Your task to perform on an android device: turn smart compose on in the gmail app Image 0: 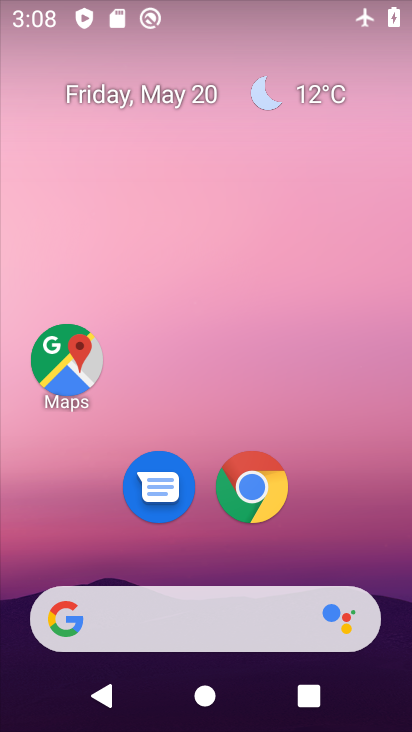
Step 0: drag from (299, 547) to (283, 229)
Your task to perform on an android device: turn smart compose on in the gmail app Image 1: 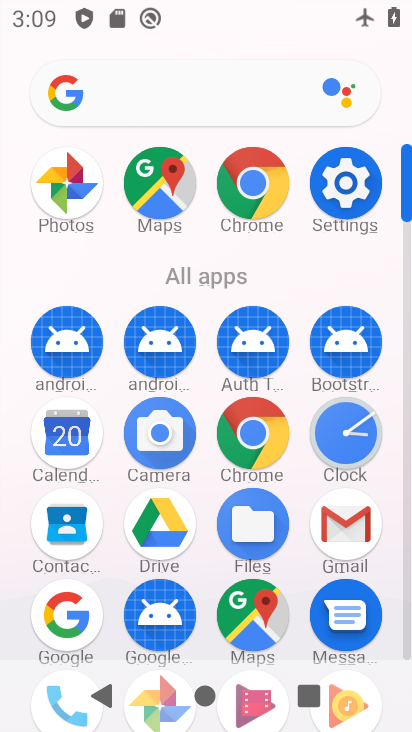
Step 1: drag from (221, 598) to (191, 307)
Your task to perform on an android device: turn smart compose on in the gmail app Image 2: 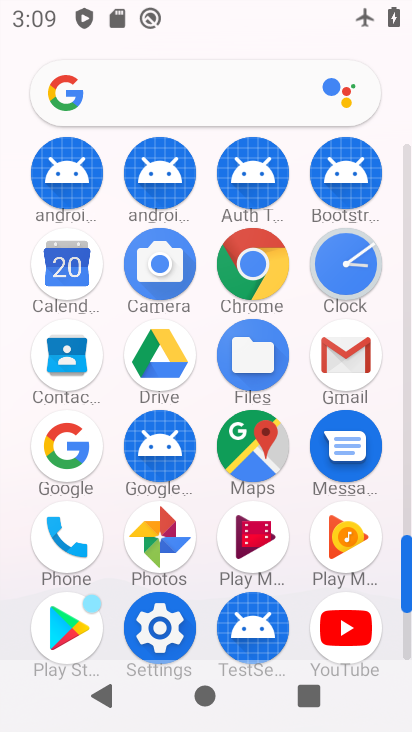
Step 2: click (345, 358)
Your task to perform on an android device: turn smart compose on in the gmail app Image 3: 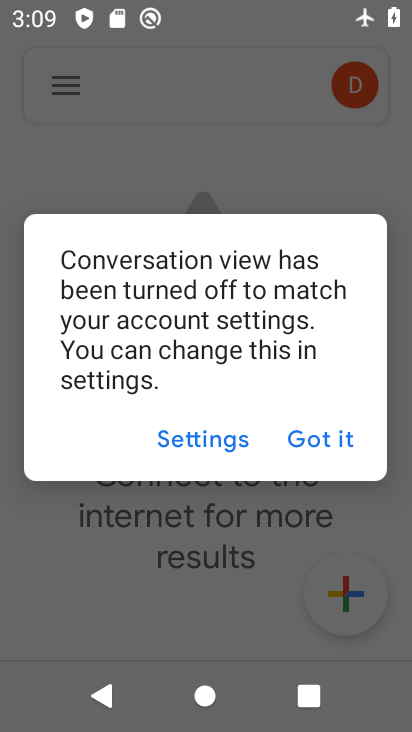
Step 3: click (325, 442)
Your task to perform on an android device: turn smart compose on in the gmail app Image 4: 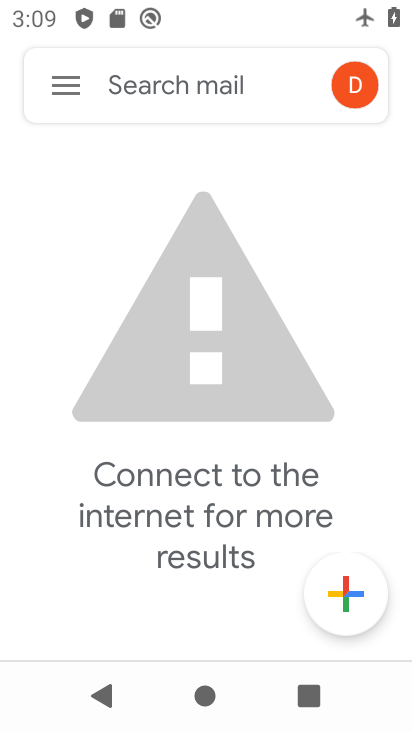
Step 4: click (68, 88)
Your task to perform on an android device: turn smart compose on in the gmail app Image 5: 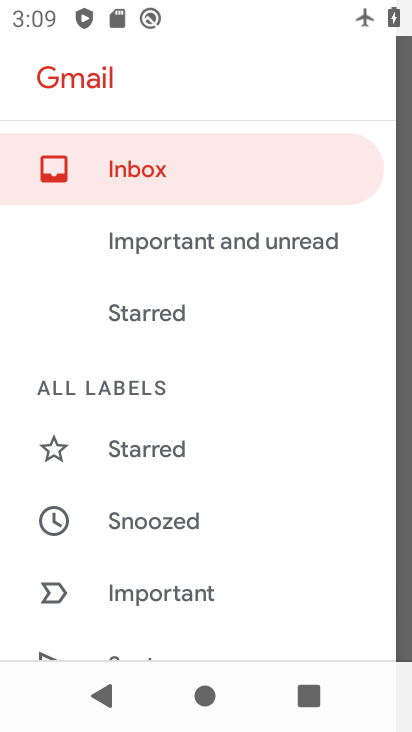
Step 5: drag from (194, 559) to (155, 277)
Your task to perform on an android device: turn smart compose on in the gmail app Image 6: 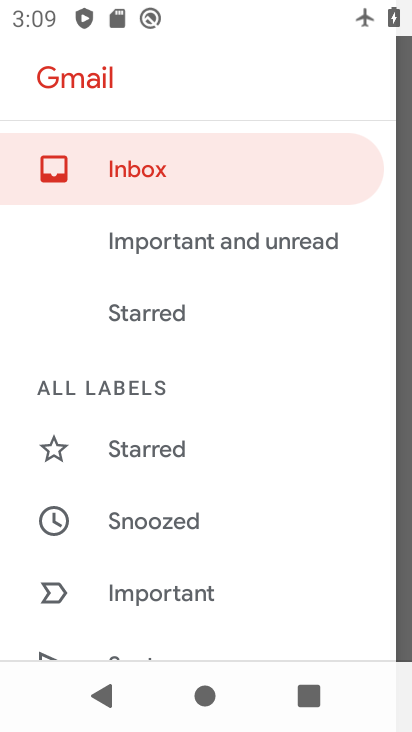
Step 6: drag from (164, 565) to (189, 284)
Your task to perform on an android device: turn smart compose on in the gmail app Image 7: 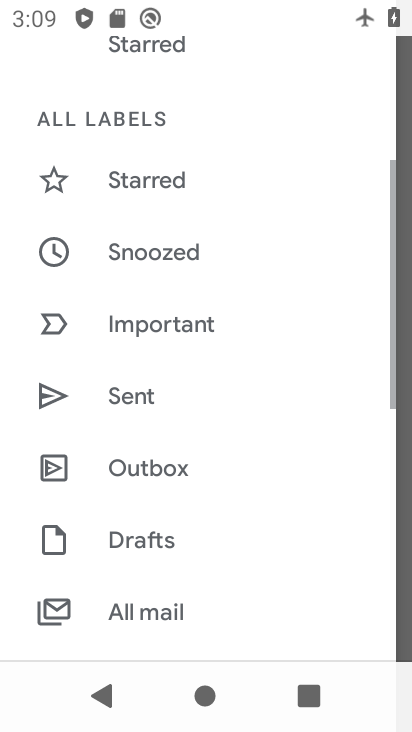
Step 7: drag from (199, 575) to (208, 255)
Your task to perform on an android device: turn smart compose on in the gmail app Image 8: 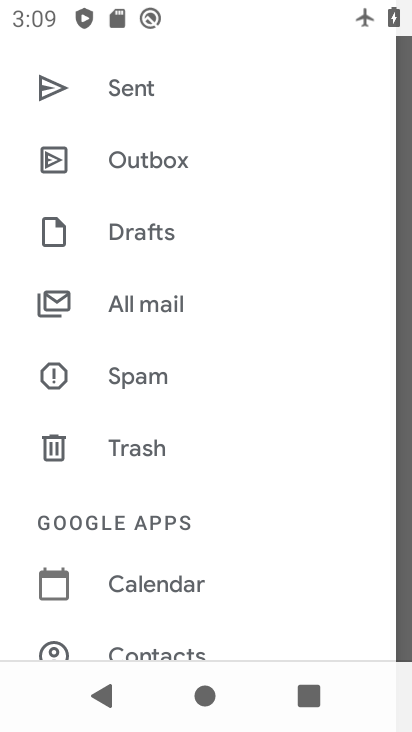
Step 8: drag from (195, 599) to (191, 335)
Your task to perform on an android device: turn smart compose on in the gmail app Image 9: 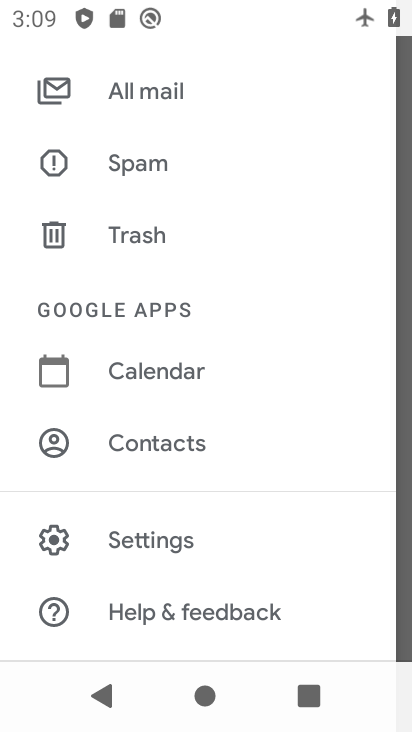
Step 9: click (187, 542)
Your task to perform on an android device: turn smart compose on in the gmail app Image 10: 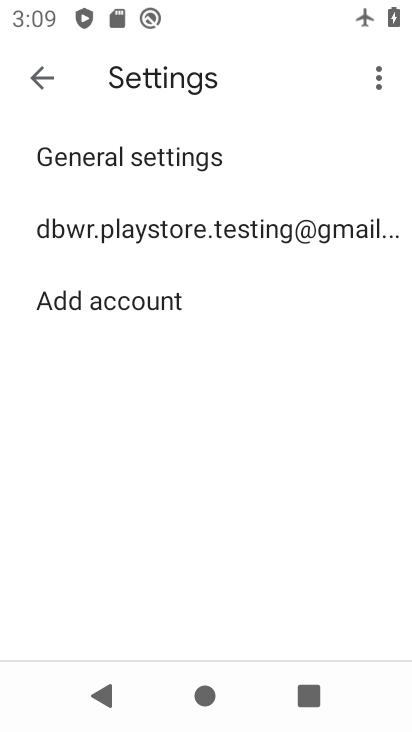
Step 10: click (106, 236)
Your task to perform on an android device: turn smart compose on in the gmail app Image 11: 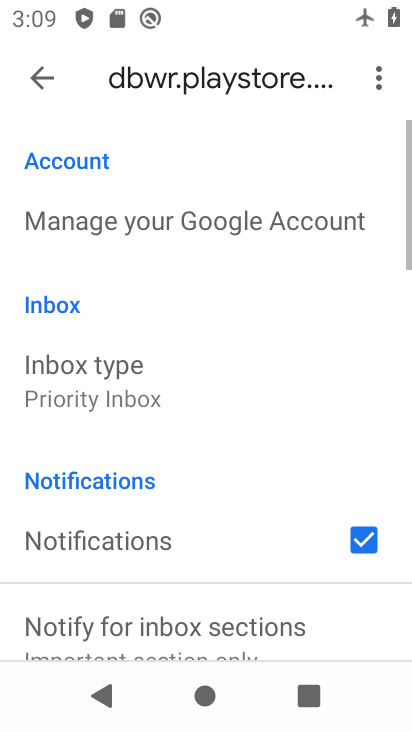
Step 11: task complete